Your task to perform on an android device: Go to location settings Image 0: 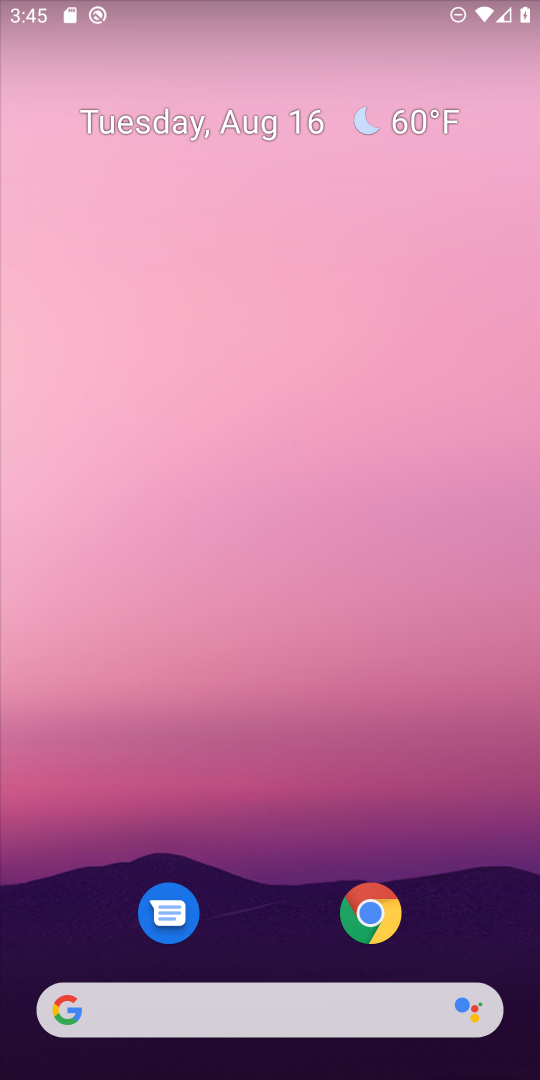
Step 0: drag from (492, 917) to (478, 190)
Your task to perform on an android device: Go to location settings Image 1: 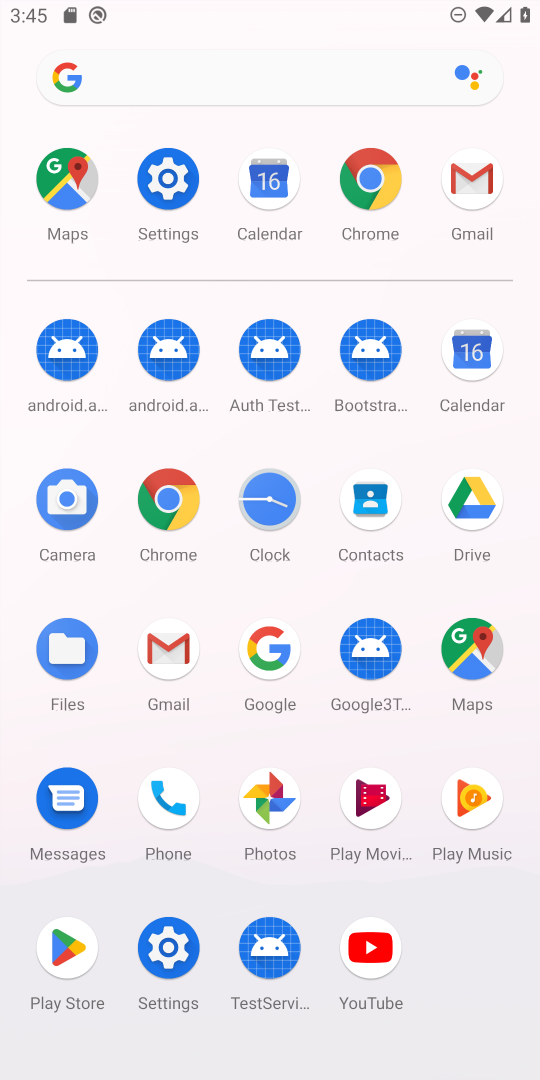
Step 1: click (169, 950)
Your task to perform on an android device: Go to location settings Image 2: 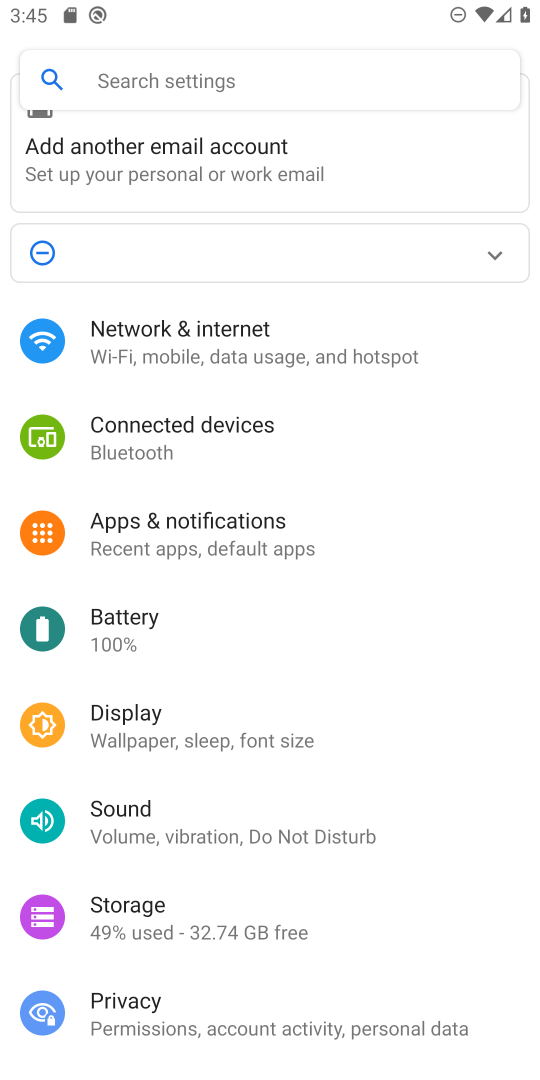
Step 2: drag from (404, 959) to (416, 302)
Your task to perform on an android device: Go to location settings Image 3: 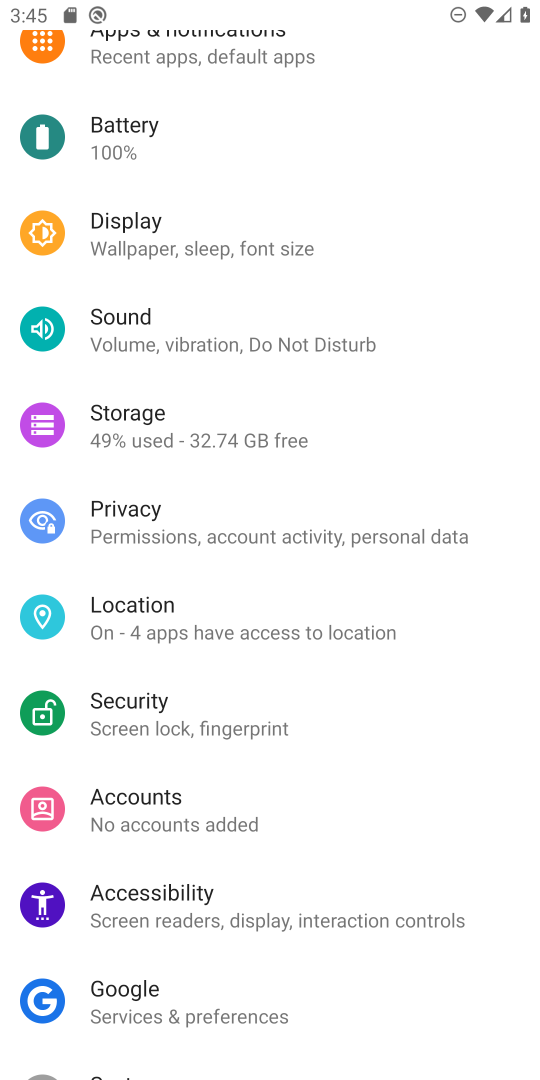
Step 3: click (154, 613)
Your task to perform on an android device: Go to location settings Image 4: 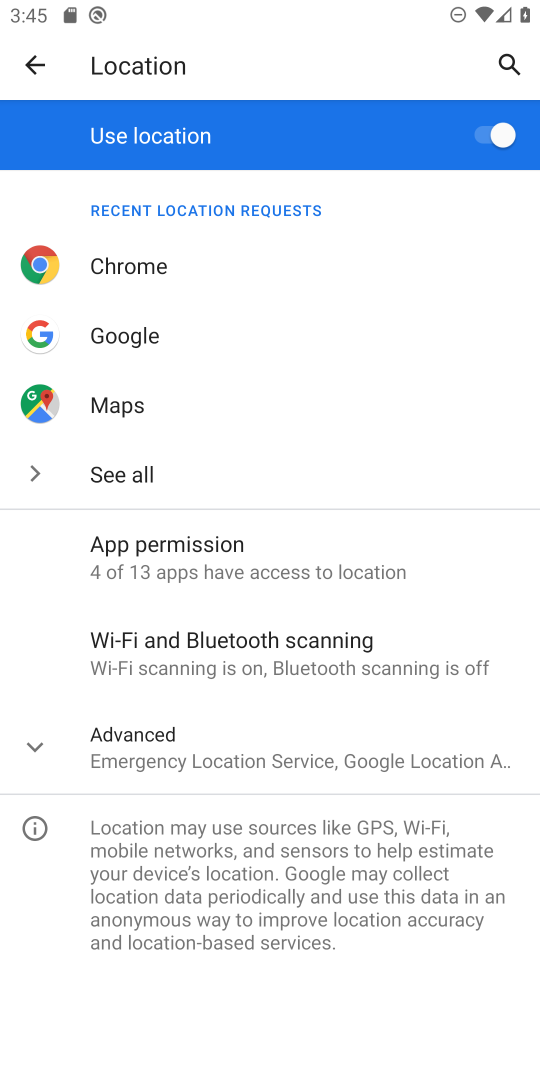
Step 4: drag from (304, 610) to (312, 288)
Your task to perform on an android device: Go to location settings Image 5: 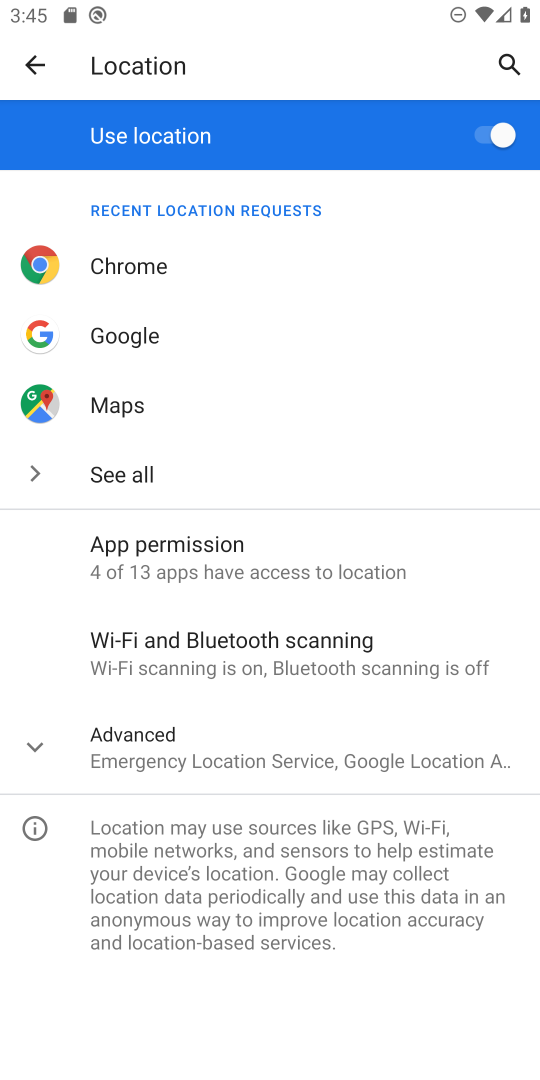
Step 5: click (28, 756)
Your task to perform on an android device: Go to location settings Image 6: 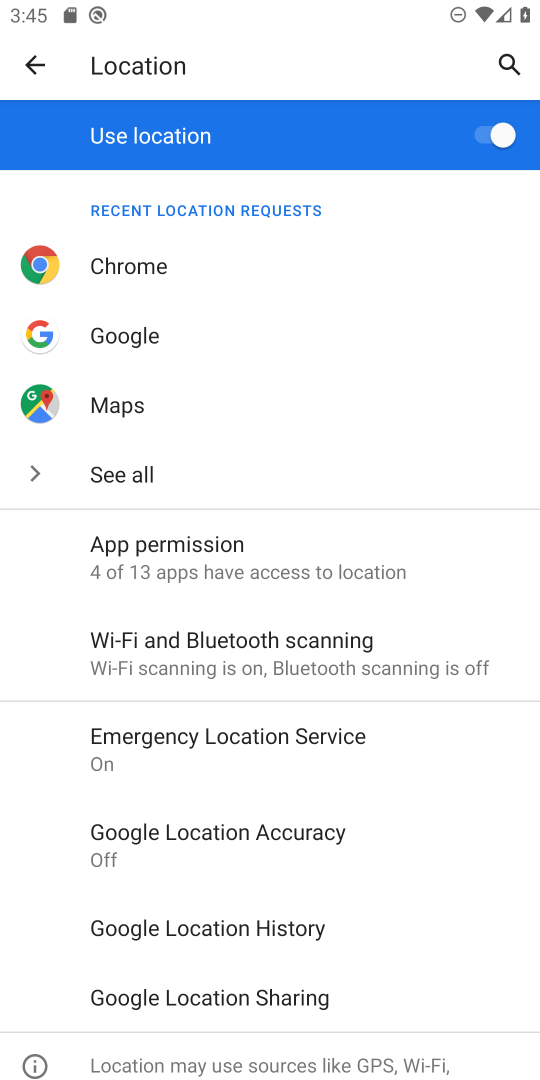
Step 6: task complete